Your task to perform on an android device: make emails show in primary in the gmail app Image 0: 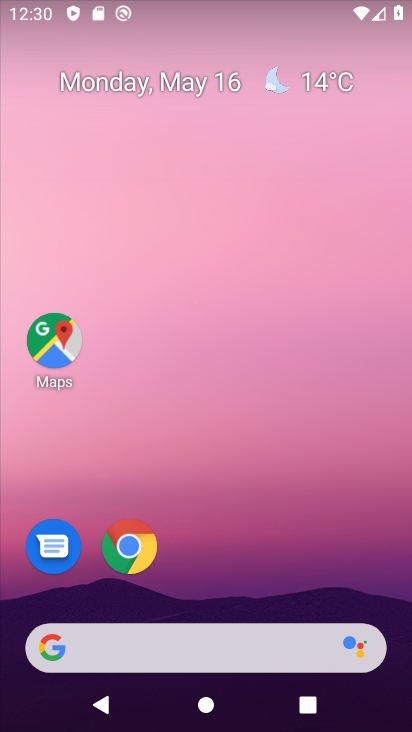
Step 0: drag from (253, 658) to (142, 224)
Your task to perform on an android device: make emails show in primary in the gmail app Image 1: 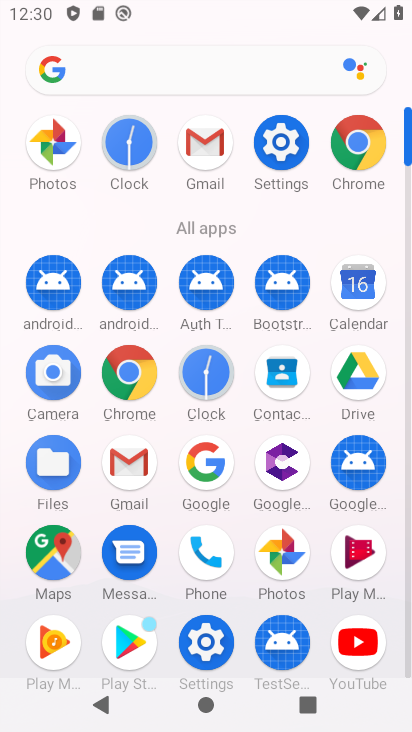
Step 1: click (196, 158)
Your task to perform on an android device: make emails show in primary in the gmail app Image 2: 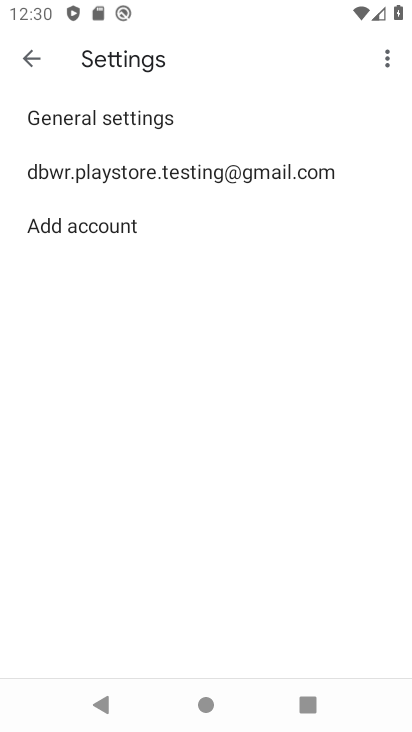
Step 2: click (181, 165)
Your task to perform on an android device: make emails show in primary in the gmail app Image 3: 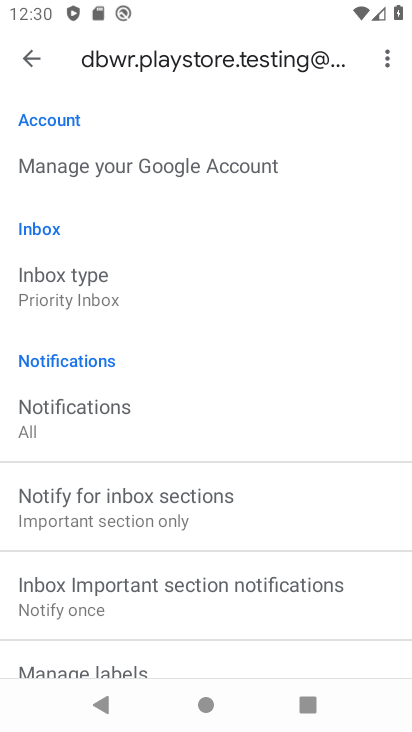
Step 3: click (69, 289)
Your task to perform on an android device: make emails show in primary in the gmail app Image 4: 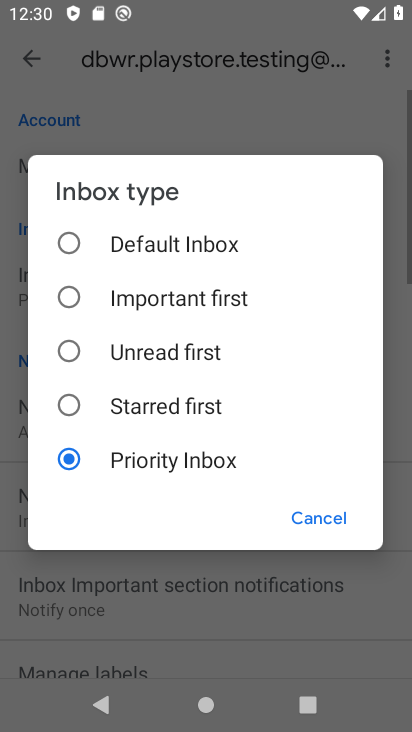
Step 4: click (119, 255)
Your task to perform on an android device: make emails show in primary in the gmail app Image 5: 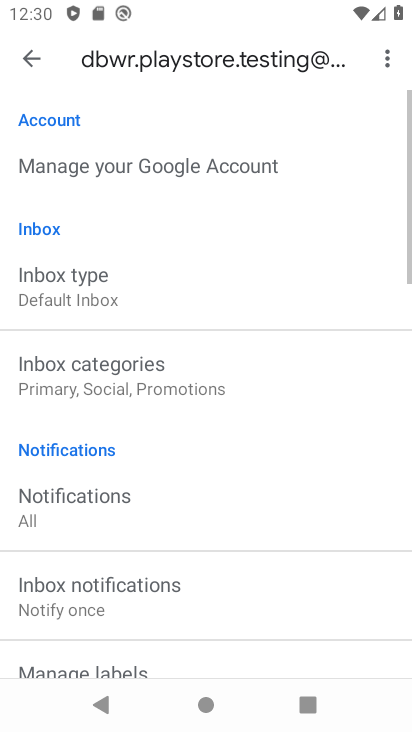
Step 5: click (94, 371)
Your task to perform on an android device: make emails show in primary in the gmail app Image 6: 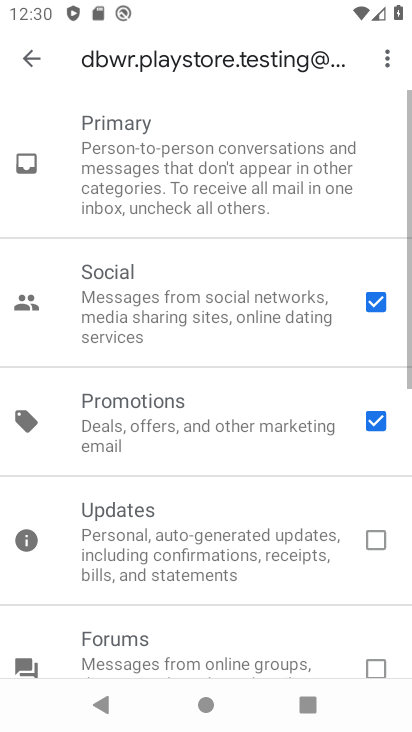
Step 6: click (142, 201)
Your task to perform on an android device: make emails show in primary in the gmail app Image 7: 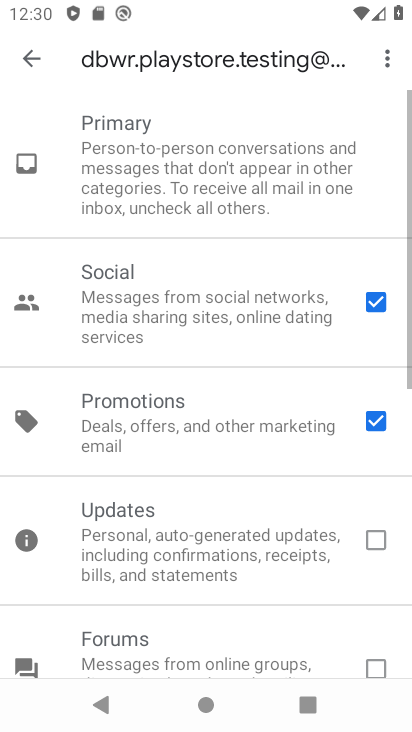
Step 7: task complete